Your task to perform on an android device: Open settings Image 0: 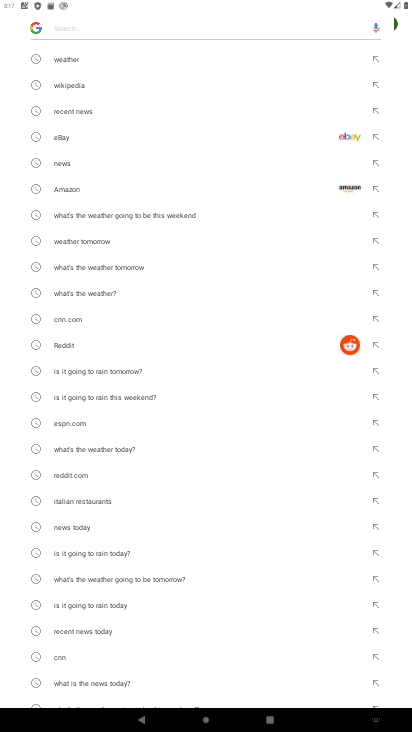
Step 0: press home button
Your task to perform on an android device: Open settings Image 1: 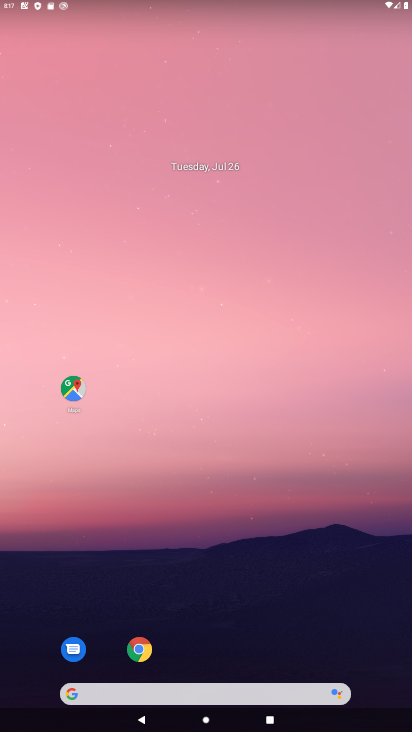
Step 1: drag from (208, 656) to (236, 3)
Your task to perform on an android device: Open settings Image 2: 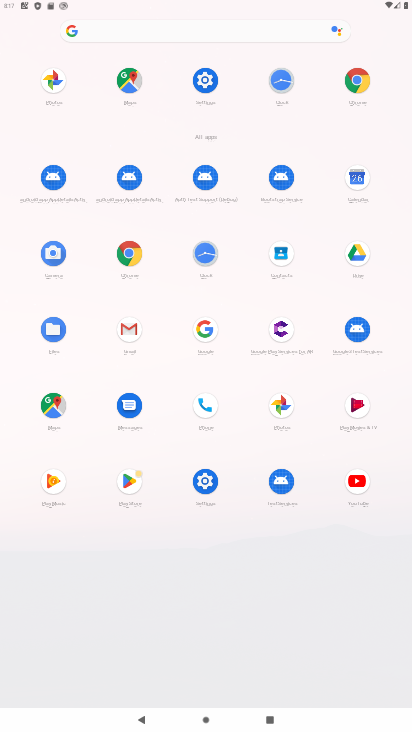
Step 2: click (204, 97)
Your task to perform on an android device: Open settings Image 3: 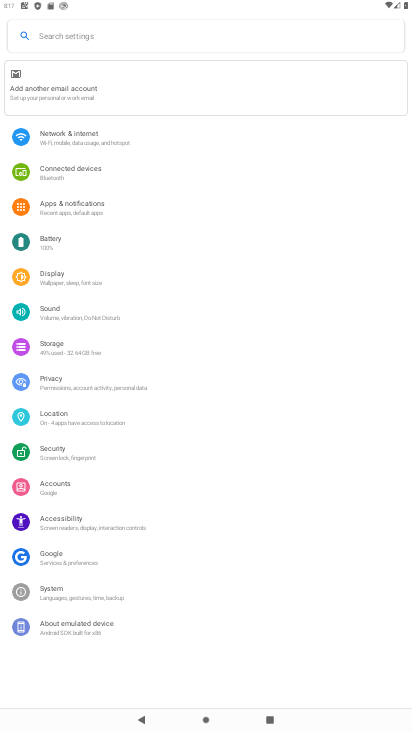
Step 3: task complete